Your task to perform on an android device: Search for pizza restaurants on Maps Image 0: 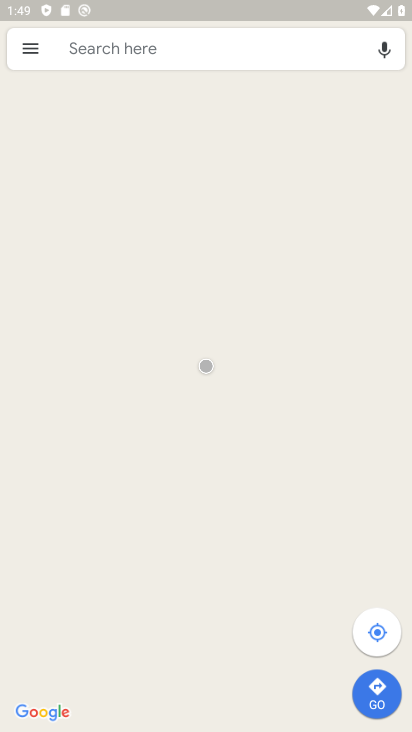
Step 0: press home button
Your task to perform on an android device: Search for pizza restaurants on Maps Image 1: 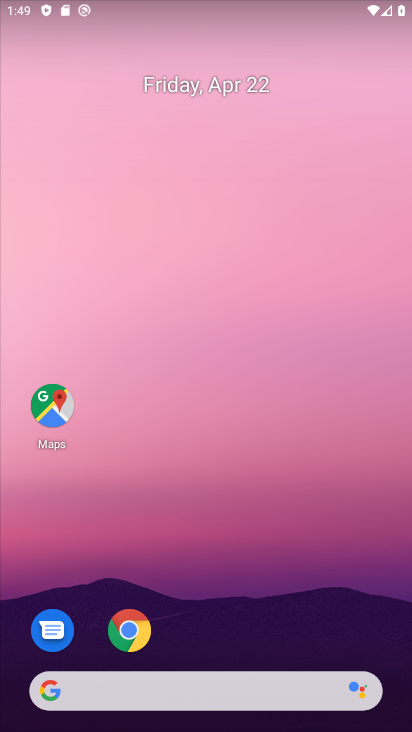
Step 1: drag from (207, 691) to (249, 164)
Your task to perform on an android device: Search for pizza restaurants on Maps Image 2: 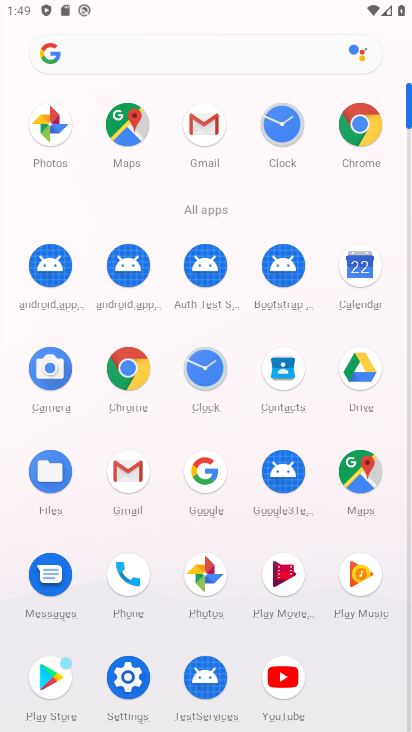
Step 2: click (365, 496)
Your task to perform on an android device: Search for pizza restaurants on Maps Image 3: 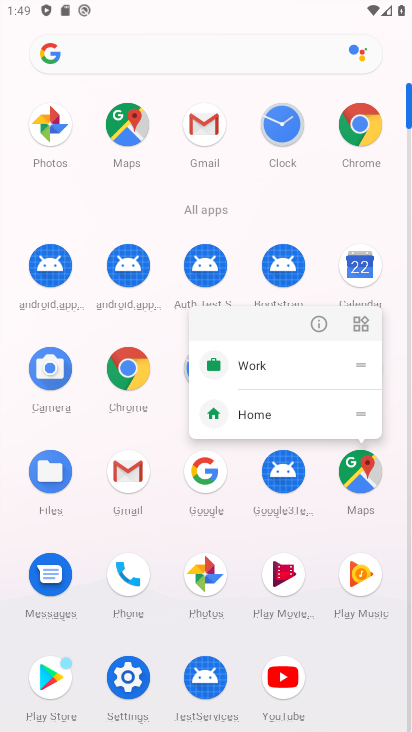
Step 3: click (365, 496)
Your task to perform on an android device: Search for pizza restaurants on Maps Image 4: 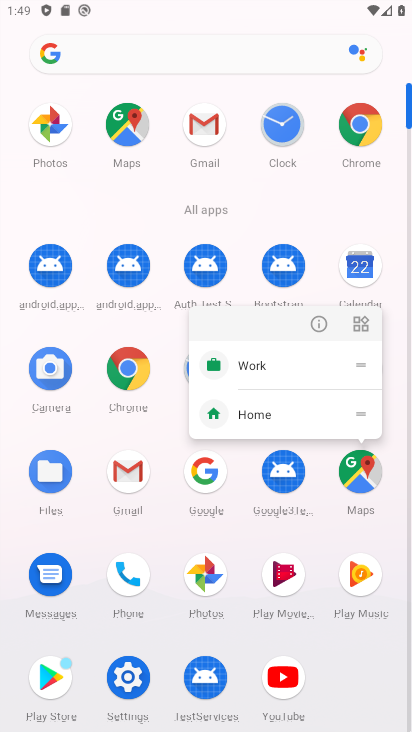
Step 4: click (365, 496)
Your task to perform on an android device: Search for pizza restaurants on Maps Image 5: 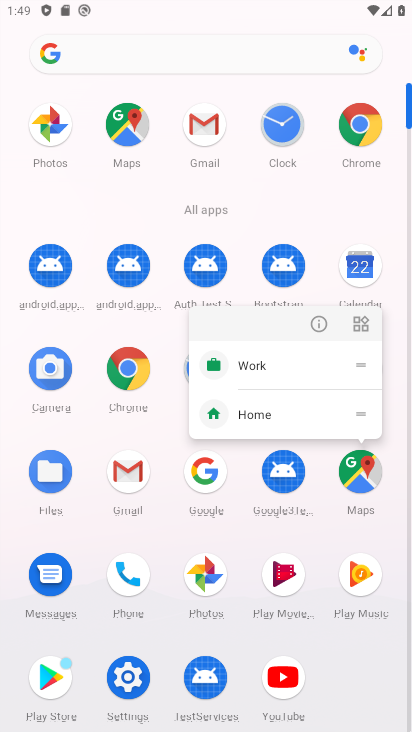
Step 5: click (363, 466)
Your task to perform on an android device: Search for pizza restaurants on Maps Image 6: 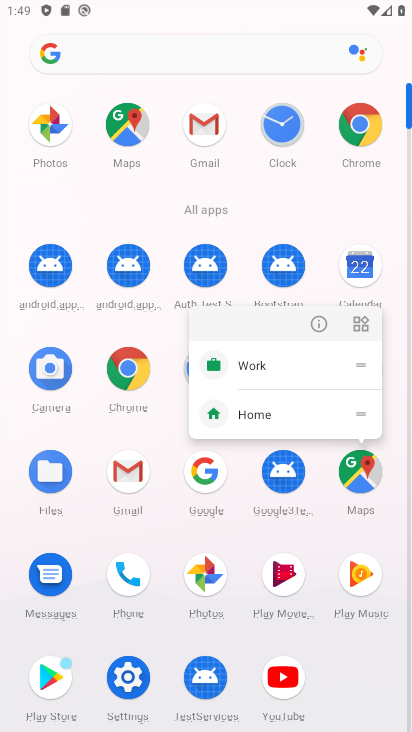
Step 6: click (363, 466)
Your task to perform on an android device: Search for pizza restaurants on Maps Image 7: 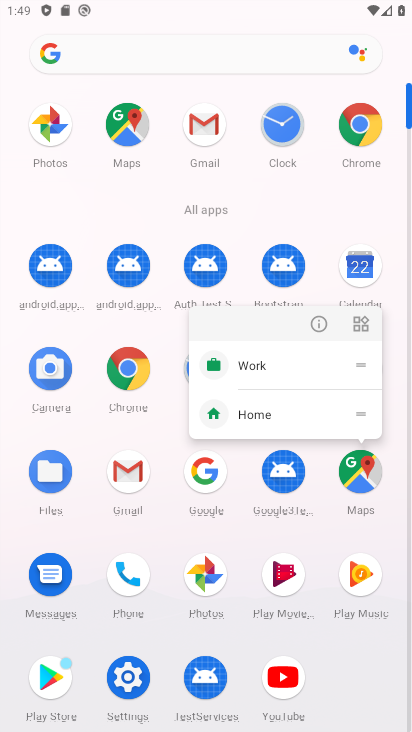
Step 7: click (363, 466)
Your task to perform on an android device: Search for pizza restaurants on Maps Image 8: 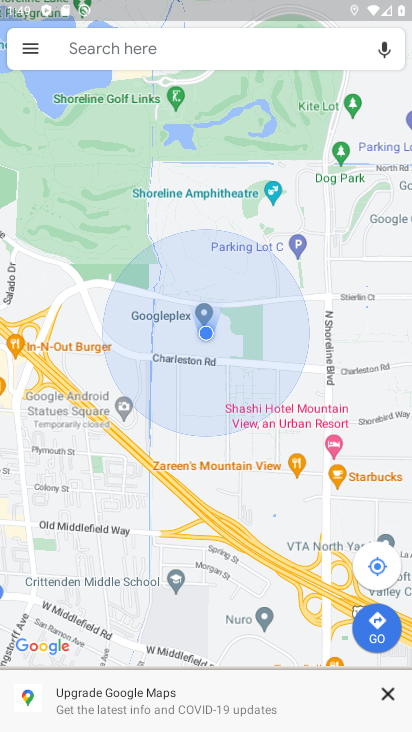
Step 8: click (240, 64)
Your task to perform on an android device: Search for pizza restaurants on Maps Image 9: 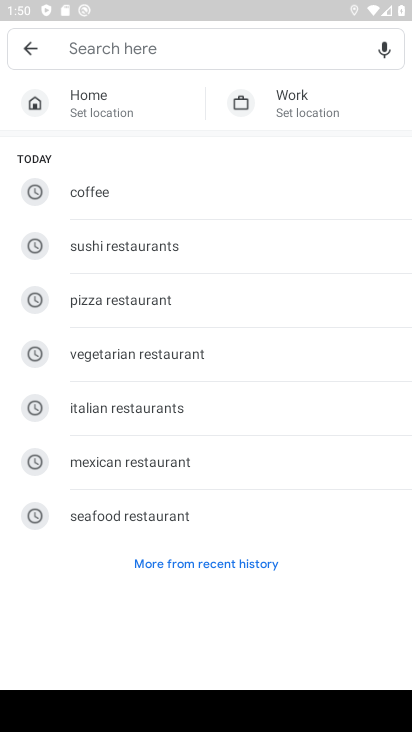
Step 9: type "pizza restaurants "
Your task to perform on an android device: Search for pizza restaurants on Maps Image 10: 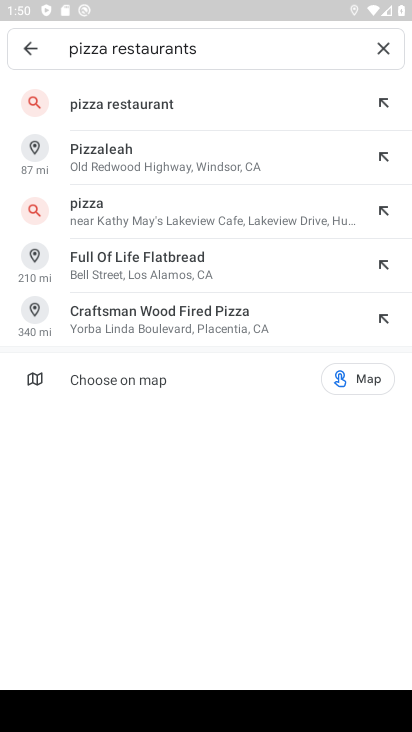
Step 10: click (173, 109)
Your task to perform on an android device: Search for pizza restaurants on Maps Image 11: 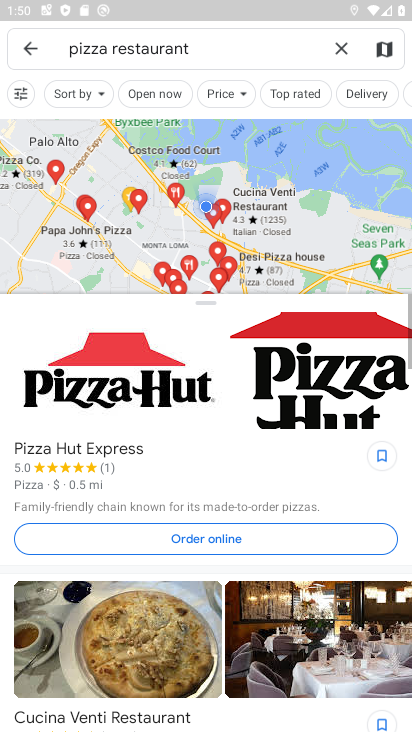
Step 11: task complete